Your task to perform on an android device: change alarm snooze length Image 0: 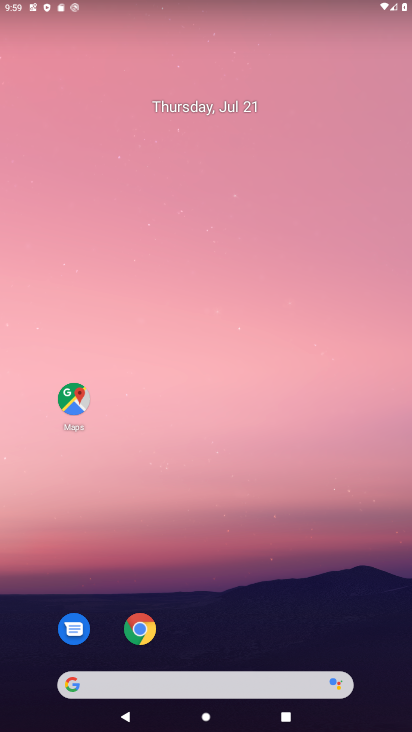
Step 0: drag from (266, 187) to (275, 0)
Your task to perform on an android device: change alarm snooze length Image 1: 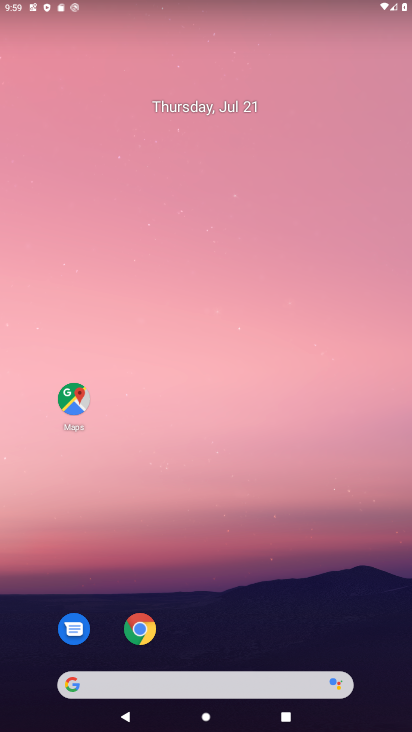
Step 1: drag from (227, 557) to (240, 312)
Your task to perform on an android device: change alarm snooze length Image 2: 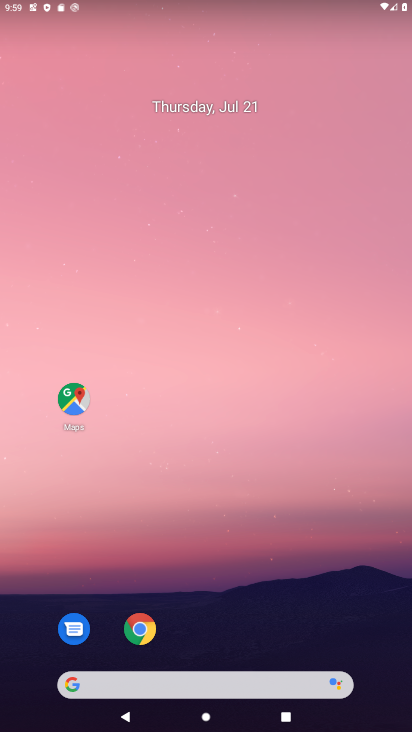
Step 2: drag from (167, 634) to (224, 193)
Your task to perform on an android device: change alarm snooze length Image 3: 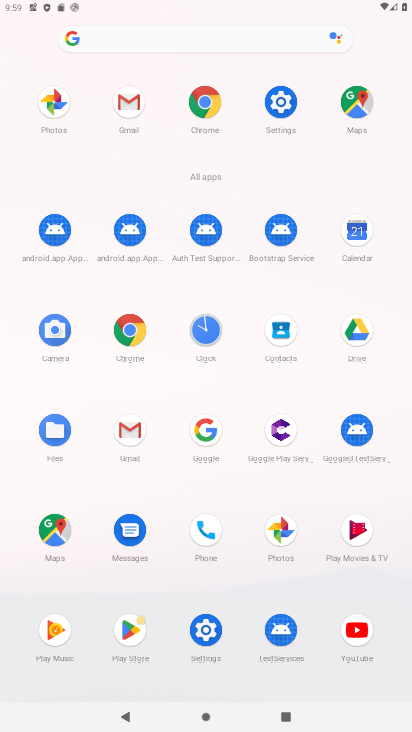
Step 3: click (201, 342)
Your task to perform on an android device: change alarm snooze length Image 4: 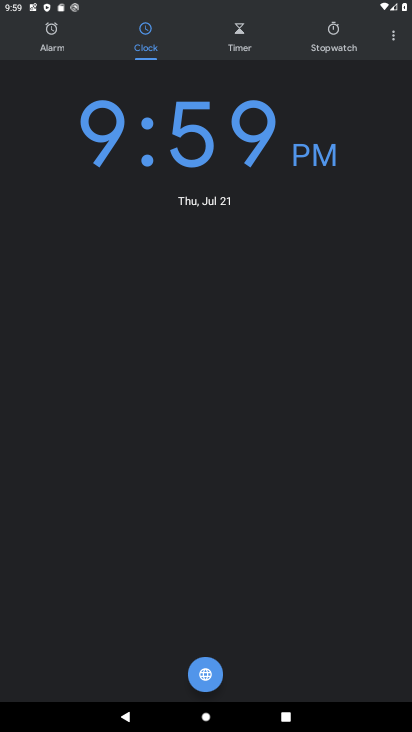
Step 4: click (389, 39)
Your task to perform on an android device: change alarm snooze length Image 5: 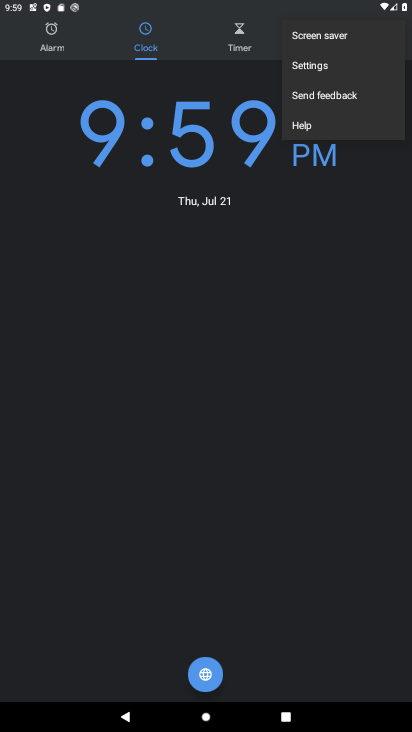
Step 5: click (344, 73)
Your task to perform on an android device: change alarm snooze length Image 6: 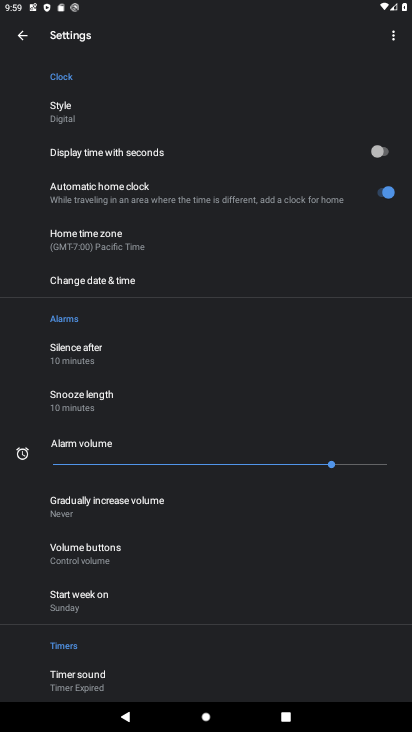
Step 6: click (107, 418)
Your task to perform on an android device: change alarm snooze length Image 7: 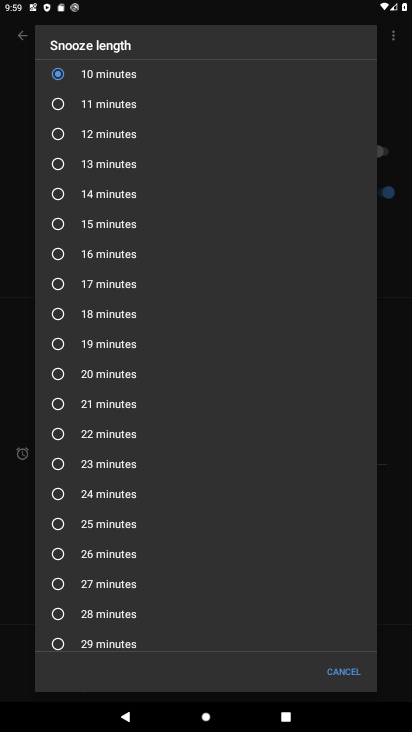
Step 7: click (105, 590)
Your task to perform on an android device: change alarm snooze length Image 8: 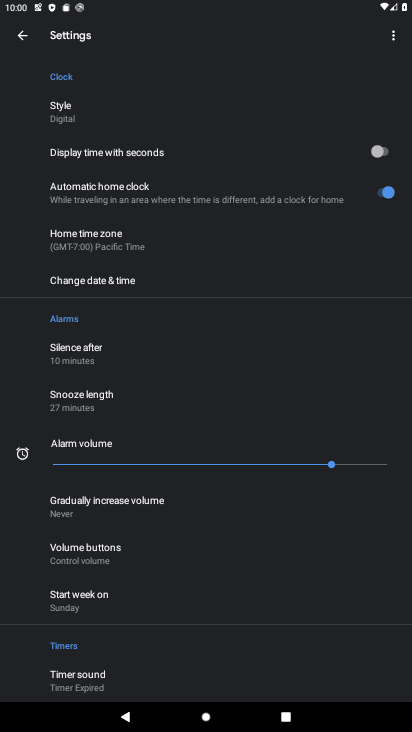
Step 8: task complete